Your task to perform on an android device: see tabs open on other devices in the chrome app Image 0: 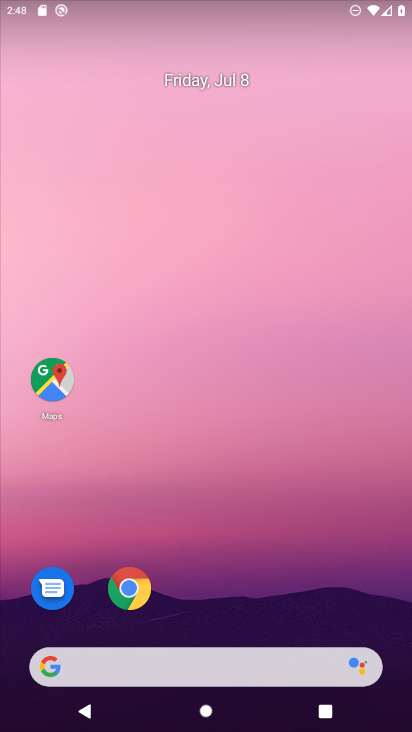
Step 0: click (130, 593)
Your task to perform on an android device: see tabs open on other devices in the chrome app Image 1: 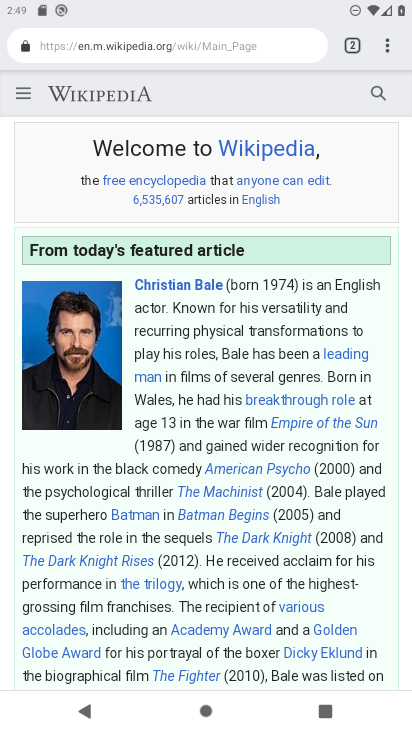
Step 1: click (385, 50)
Your task to perform on an android device: see tabs open on other devices in the chrome app Image 2: 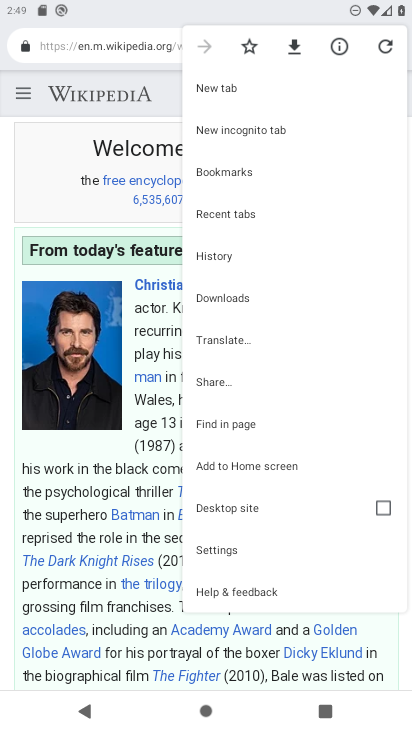
Step 2: click (223, 212)
Your task to perform on an android device: see tabs open on other devices in the chrome app Image 3: 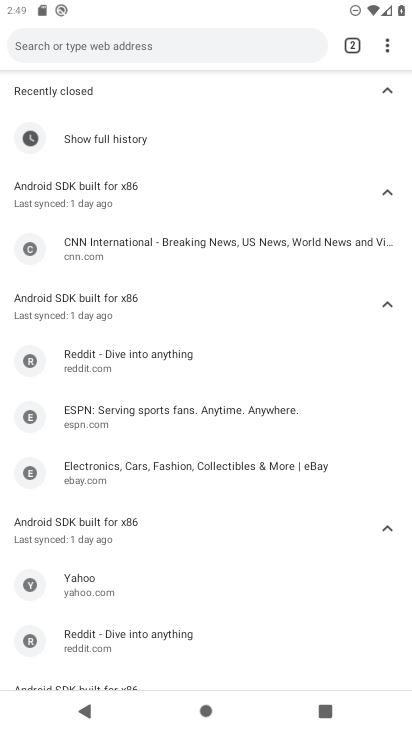
Step 3: task complete